Your task to perform on an android device: Open internet settings Image 0: 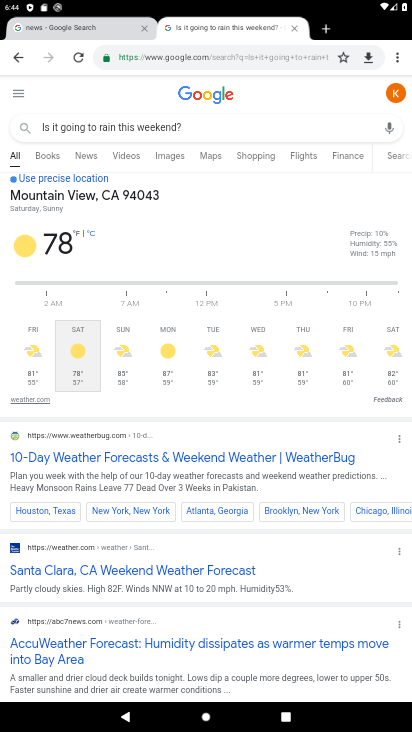
Step 0: drag from (268, 627) to (340, 352)
Your task to perform on an android device: Open internet settings Image 1: 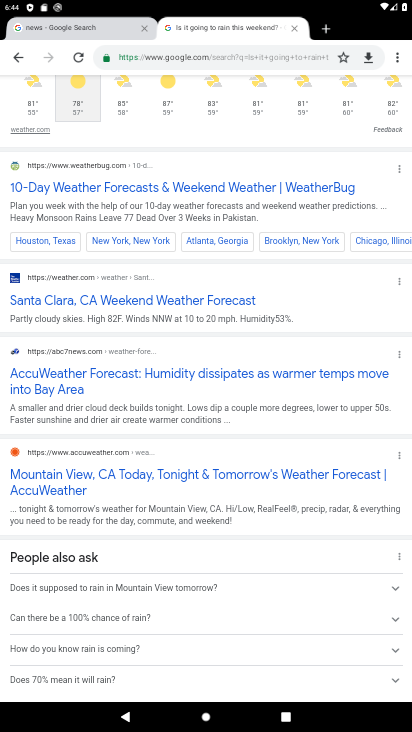
Step 1: press home button
Your task to perform on an android device: Open internet settings Image 2: 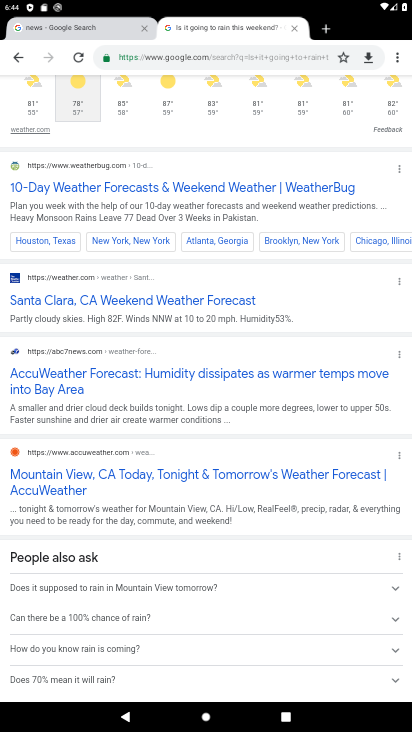
Step 2: drag from (252, 574) to (219, 53)
Your task to perform on an android device: Open internet settings Image 3: 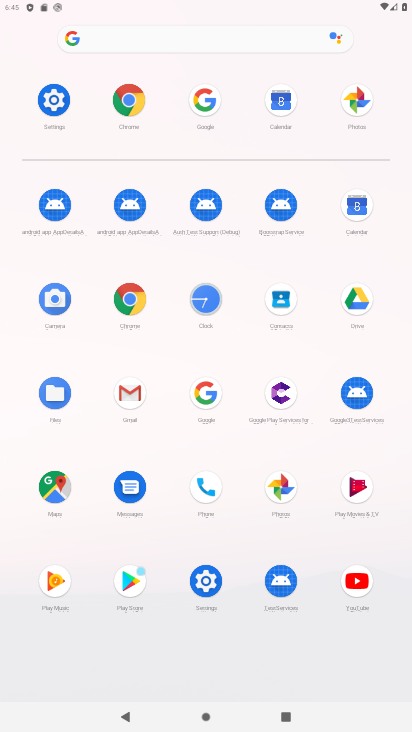
Step 3: click (28, 99)
Your task to perform on an android device: Open internet settings Image 4: 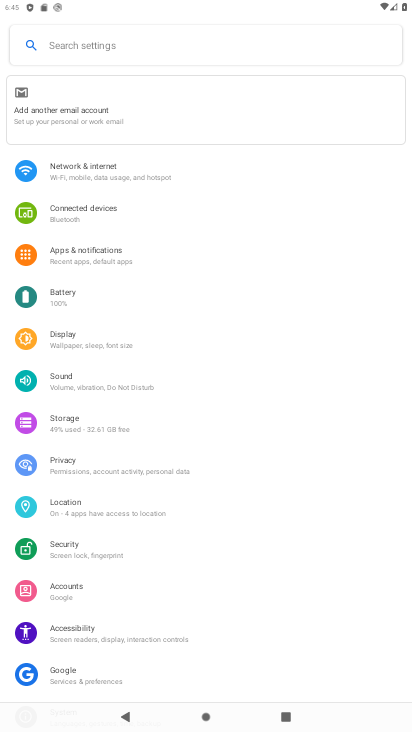
Step 4: click (79, 163)
Your task to perform on an android device: Open internet settings Image 5: 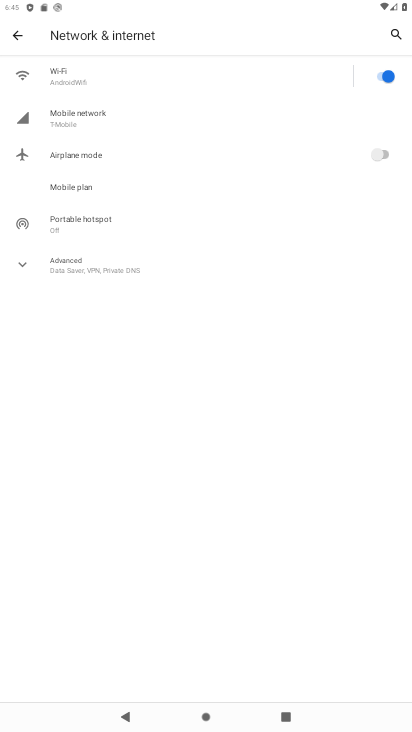
Step 5: task complete